Your task to perform on an android device: check storage Image 0: 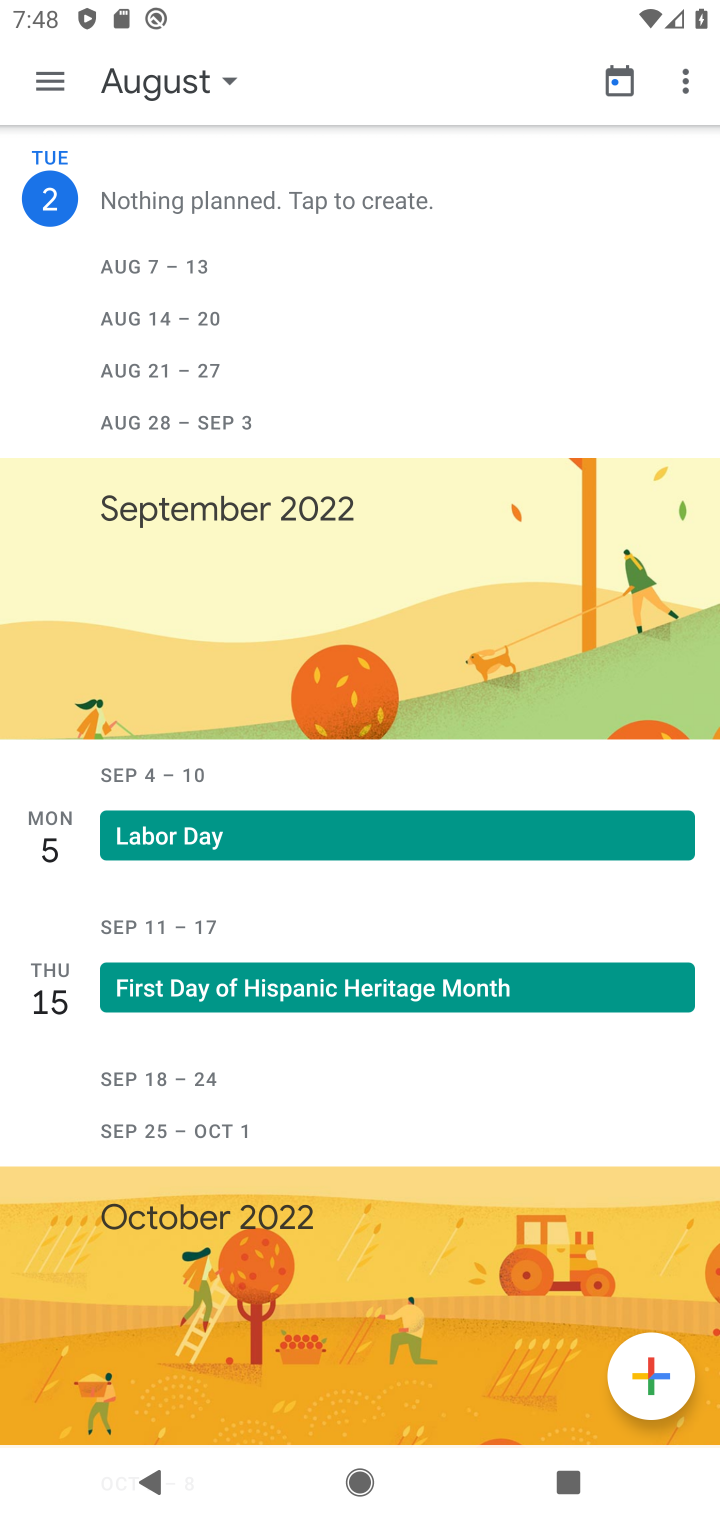
Step 0: press home button
Your task to perform on an android device: check storage Image 1: 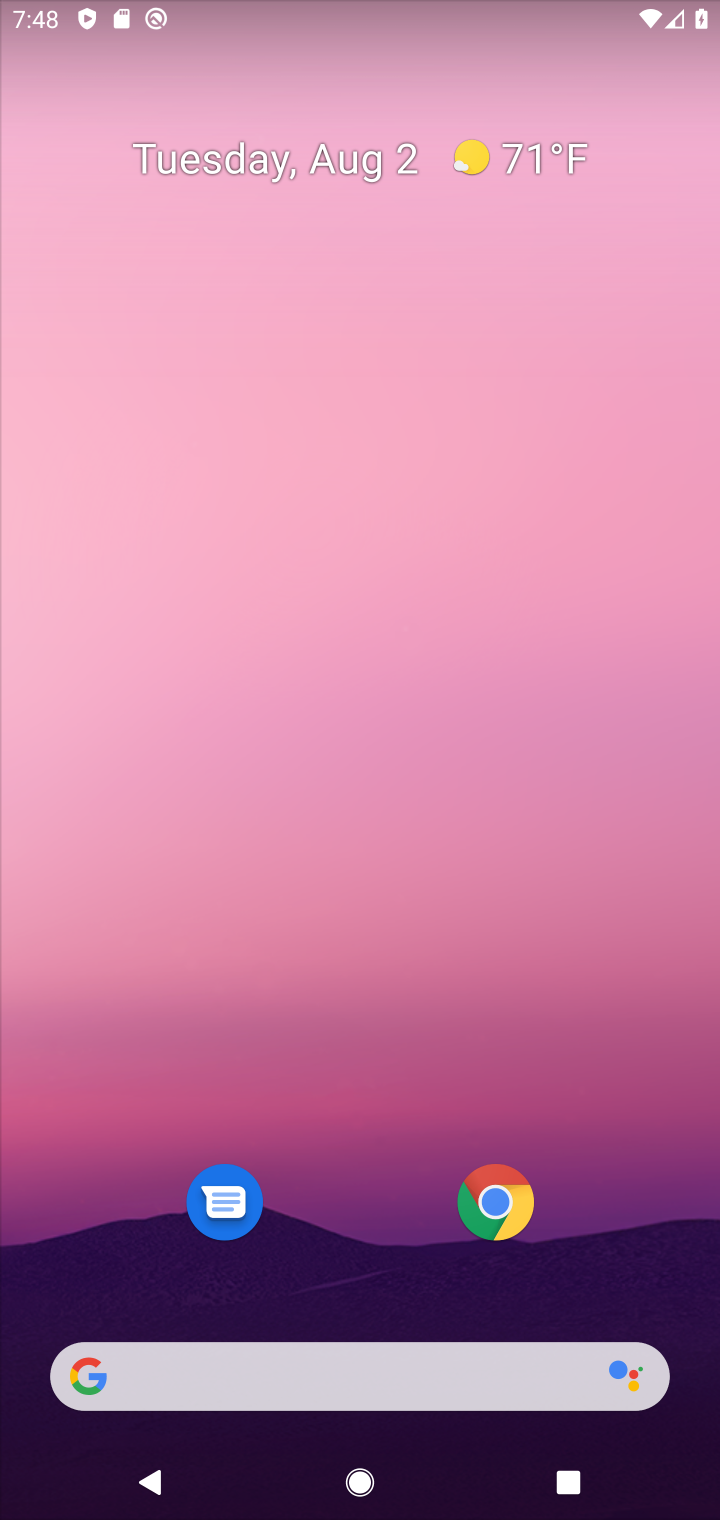
Step 1: drag from (338, 1202) to (348, 83)
Your task to perform on an android device: check storage Image 2: 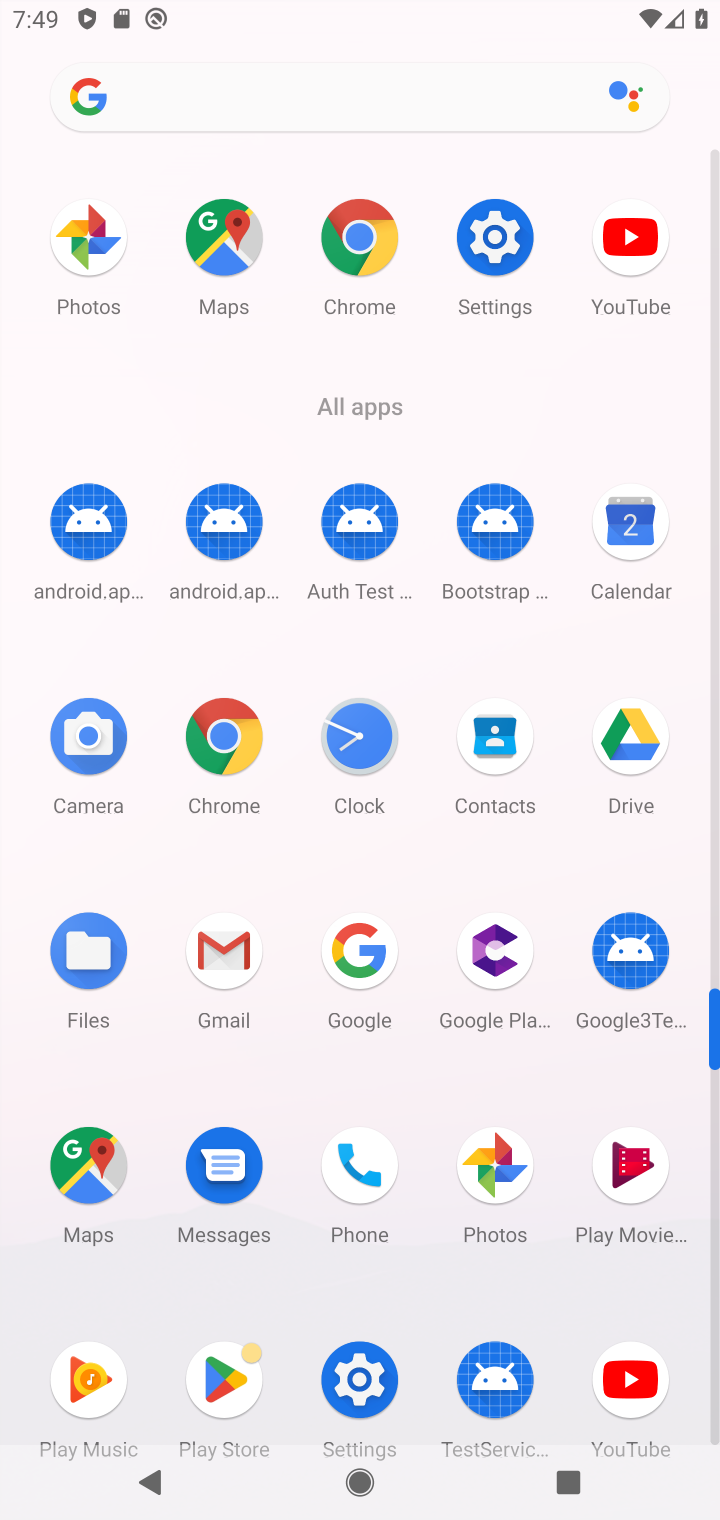
Step 2: click (497, 240)
Your task to perform on an android device: check storage Image 3: 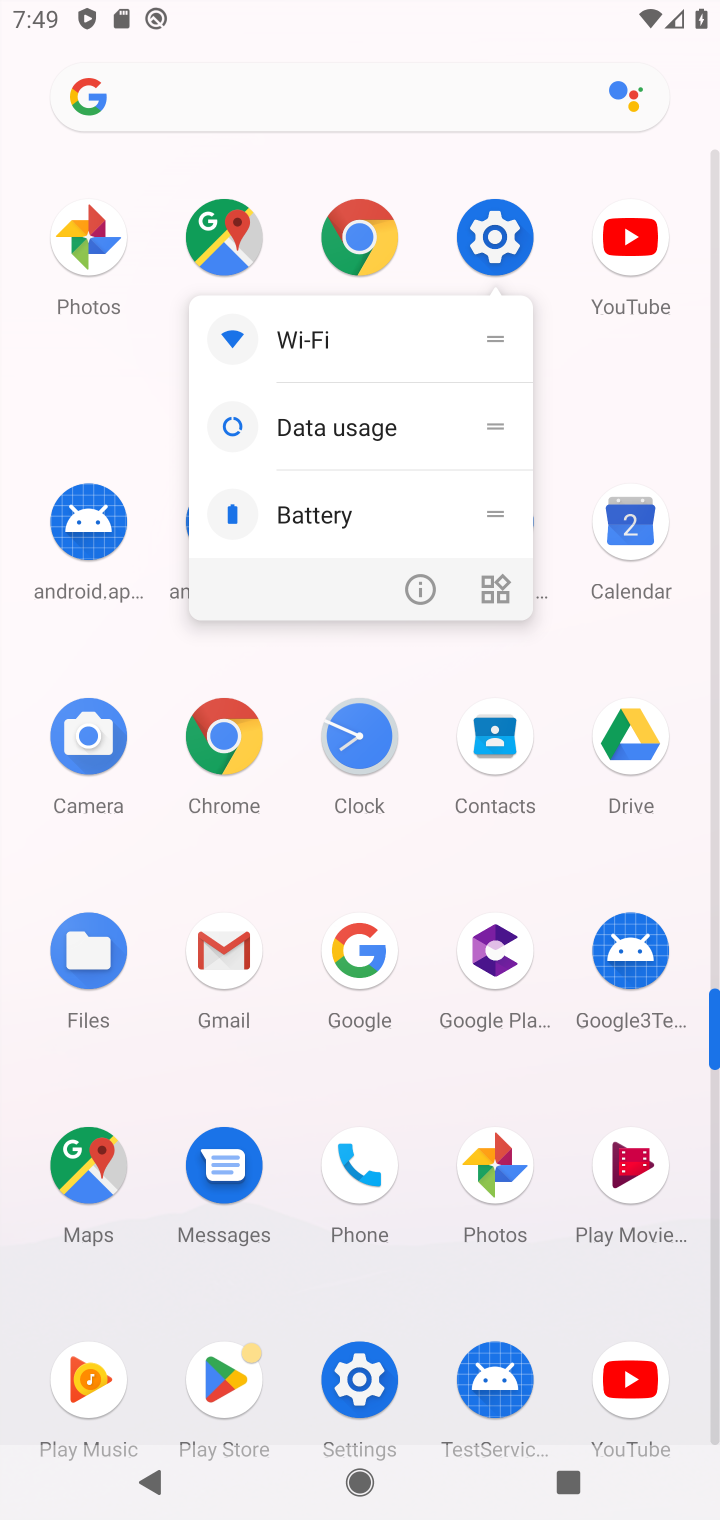
Step 3: click (497, 240)
Your task to perform on an android device: check storage Image 4: 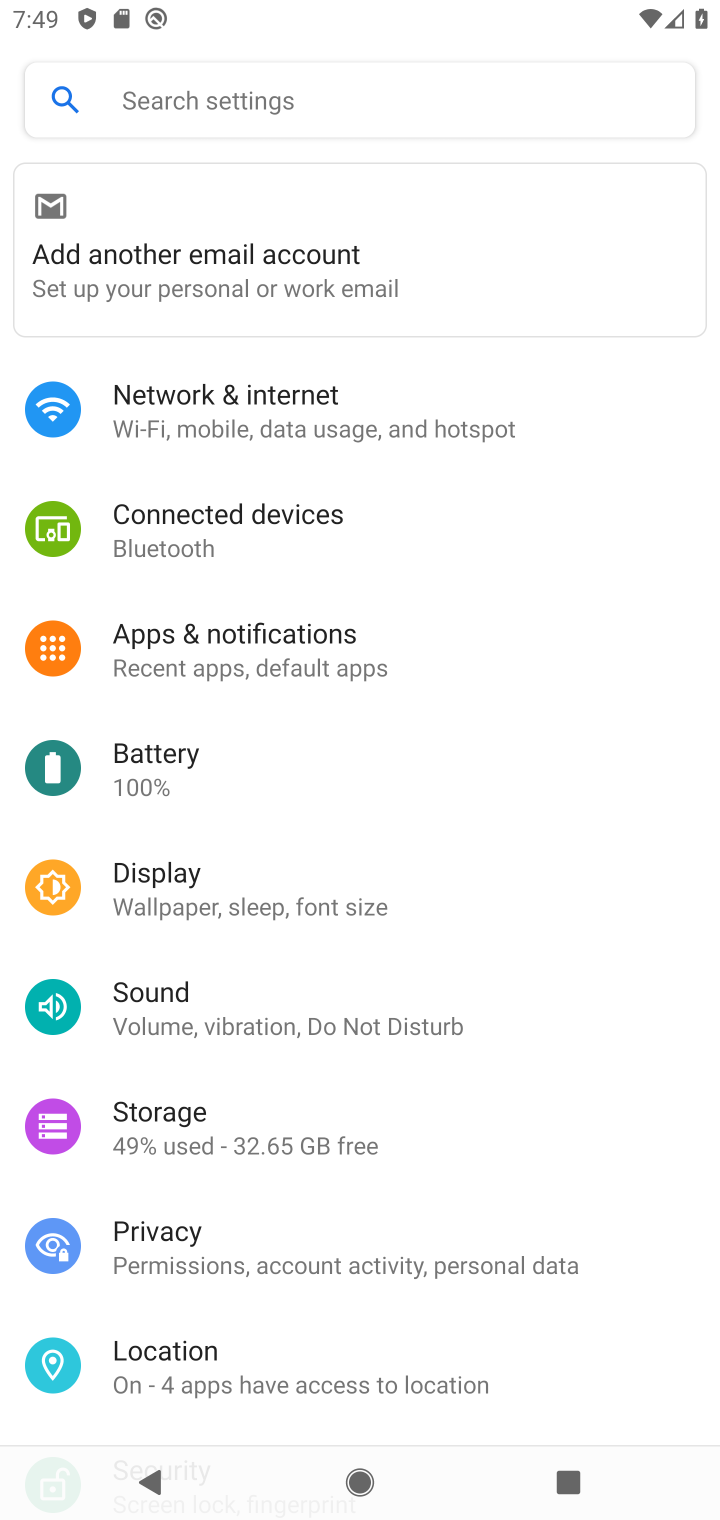
Step 4: click (158, 1133)
Your task to perform on an android device: check storage Image 5: 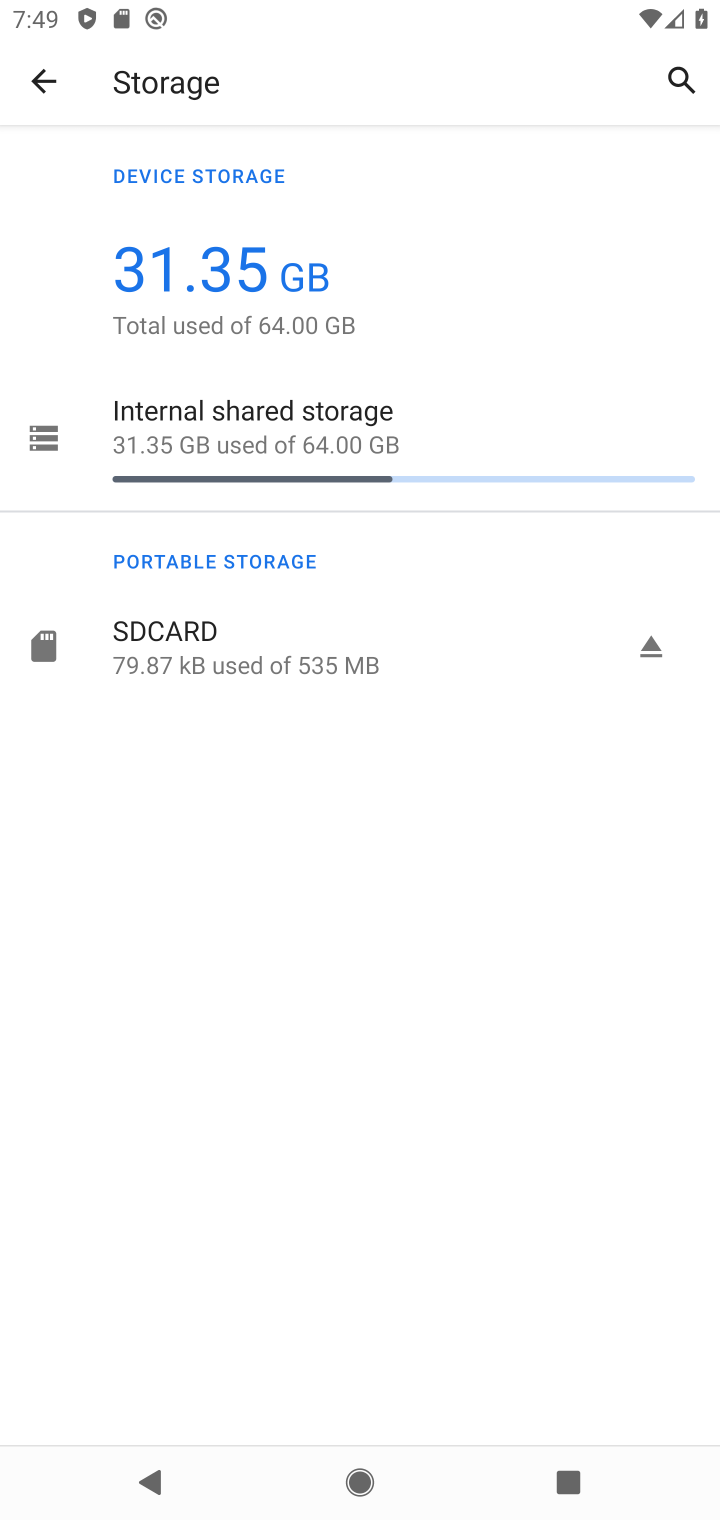
Step 5: task complete